Your task to perform on an android device: toggle show notifications on the lock screen Image 0: 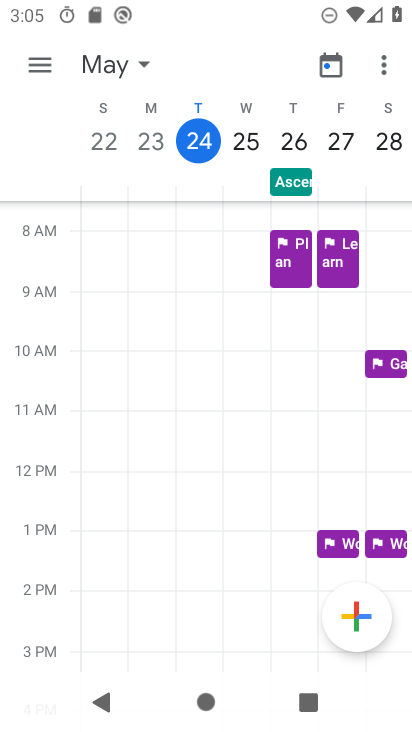
Step 0: press home button
Your task to perform on an android device: toggle show notifications on the lock screen Image 1: 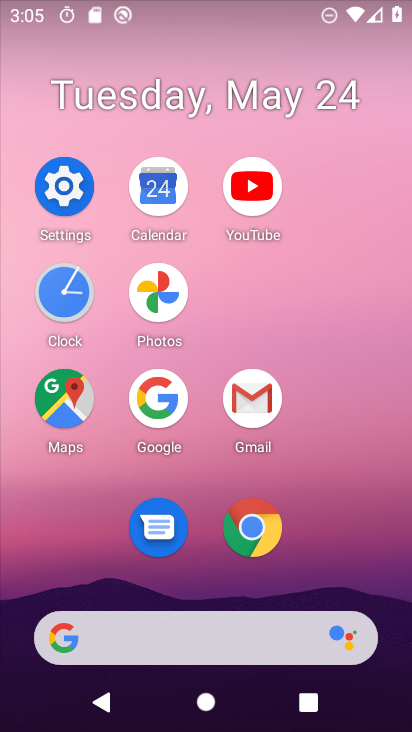
Step 1: click (69, 207)
Your task to perform on an android device: toggle show notifications on the lock screen Image 2: 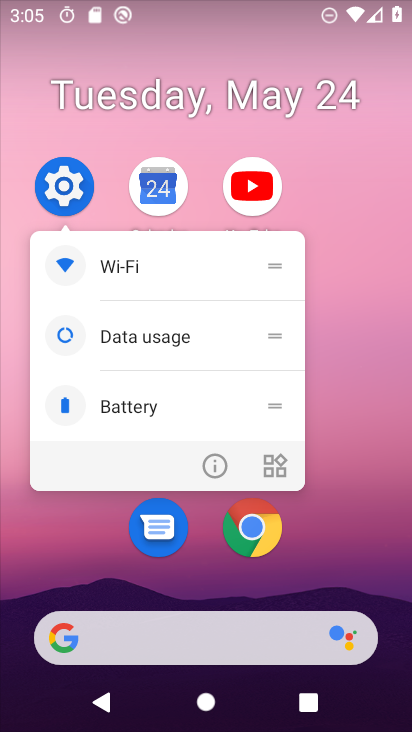
Step 2: click (64, 175)
Your task to perform on an android device: toggle show notifications on the lock screen Image 3: 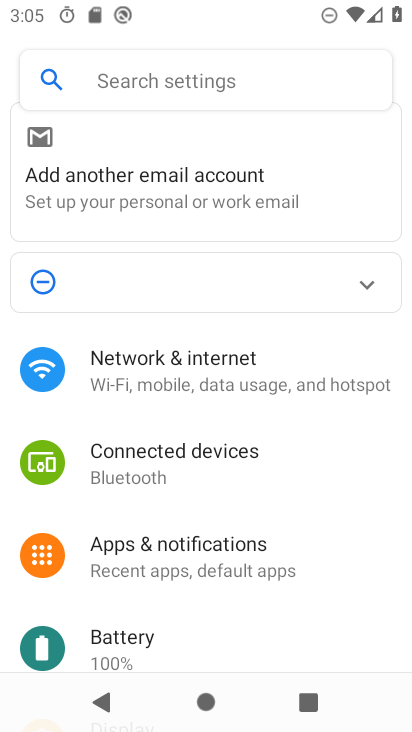
Step 3: click (212, 564)
Your task to perform on an android device: toggle show notifications on the lock screen Image 4: 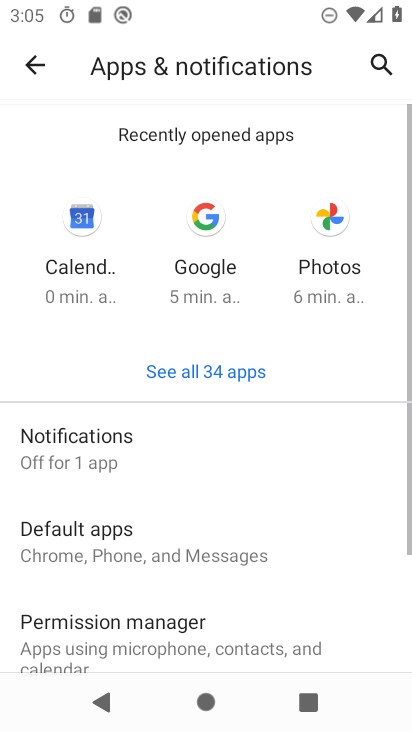
Step 4: click (121, 448)
Your task to perform on an android device: toggle show notifications on the lock screen Image 5: 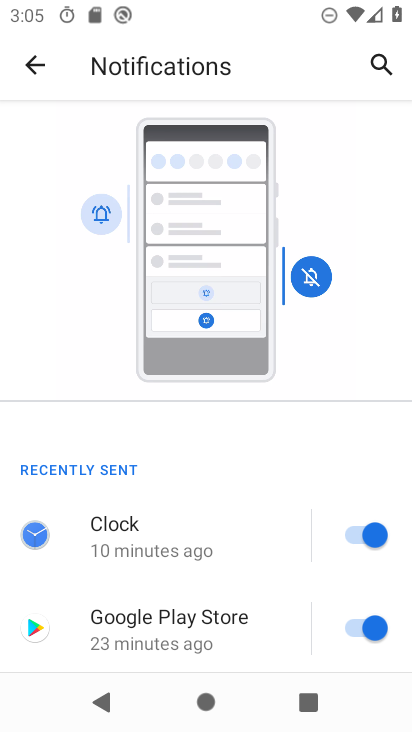
Step 5: drag from (227, 536) to (292, 91)
Your task to perform on an android device: toggle show notifications on the lock screen Image 6: 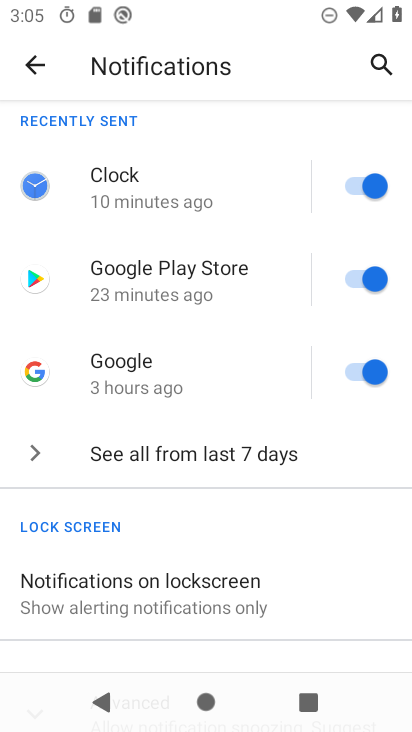
Step 6: click (213, 593)
Your task to perform on an android device: toggle show notifications on the lock screen Image 7: 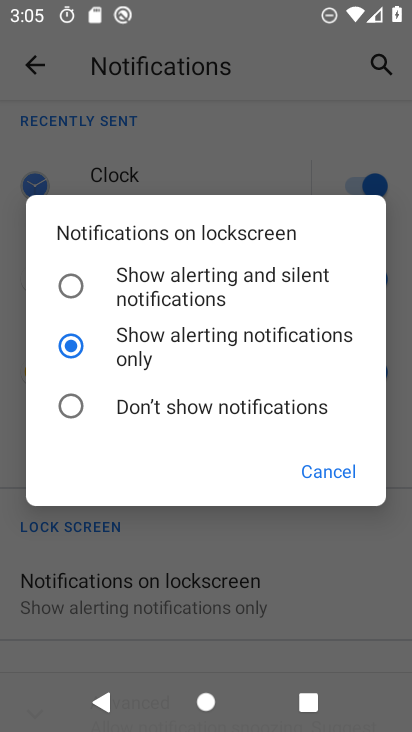
Step 7: click (146, 293)
Your task to perform on an android device: toggle show notifications on the lock screen Image 8: 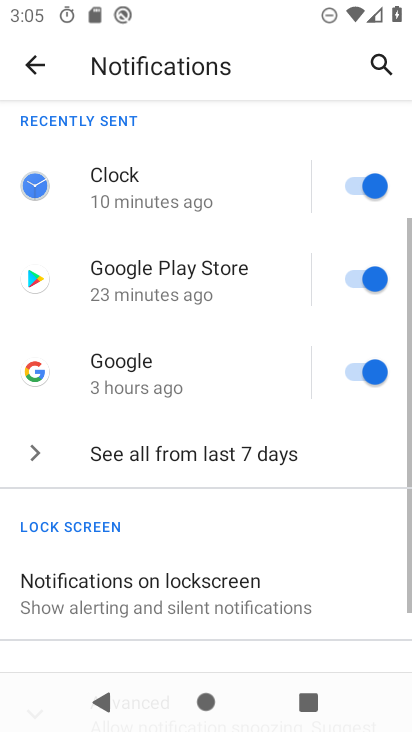
Step 8: task complete